Your task to perform on an android device: Go to notification settings Image 0: 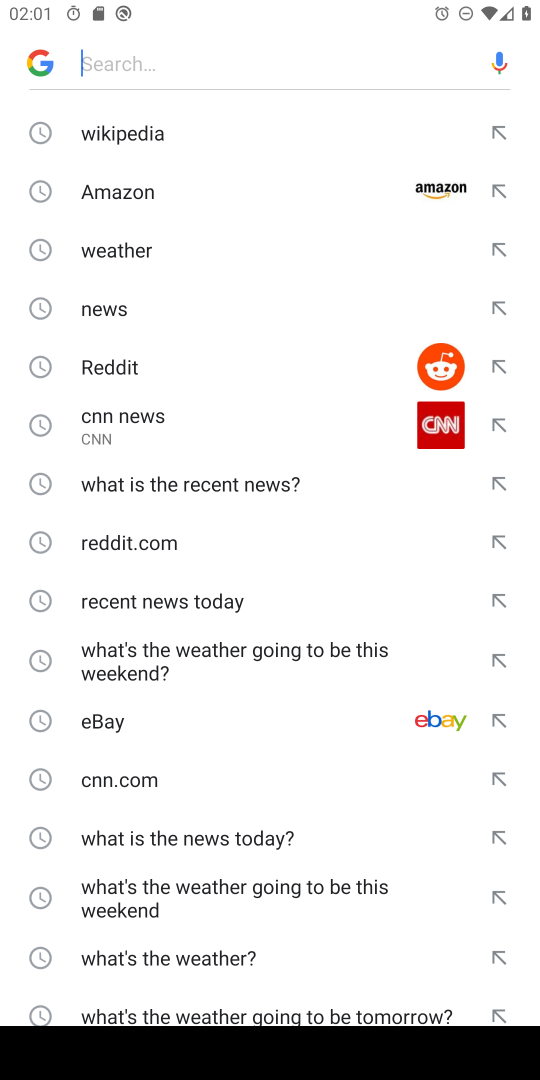
Step 0: press home button
Your task to perform on an android device: Go to notification settings Image 1: 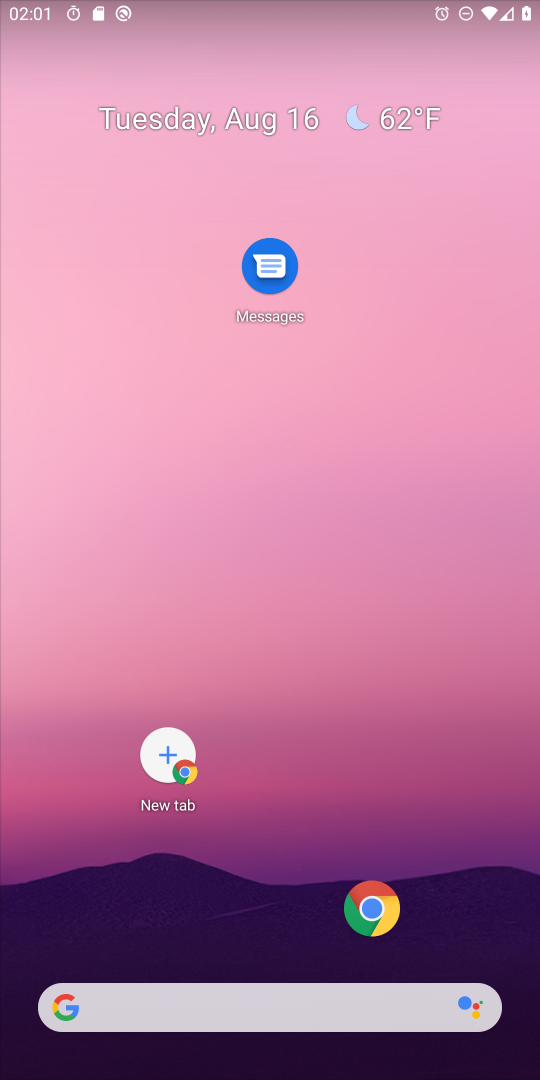
Step 1: drag from (265, 899) to (257, 92)
Your task to perform on an android device: Go to notification settings Image 2: 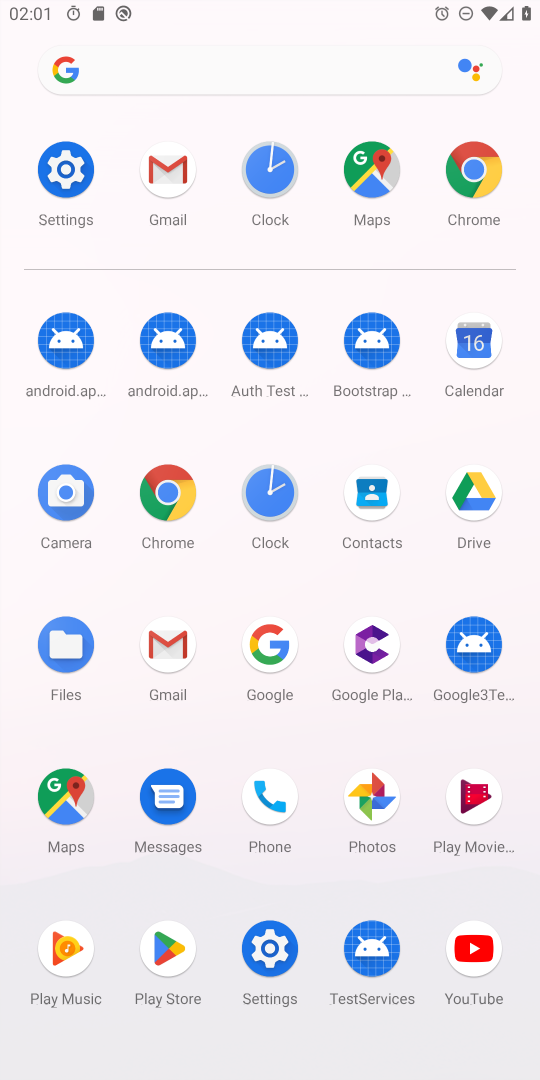
Step 2: click (73, 183)
Your task to perform on an android device: Go to notification settings Image 3: 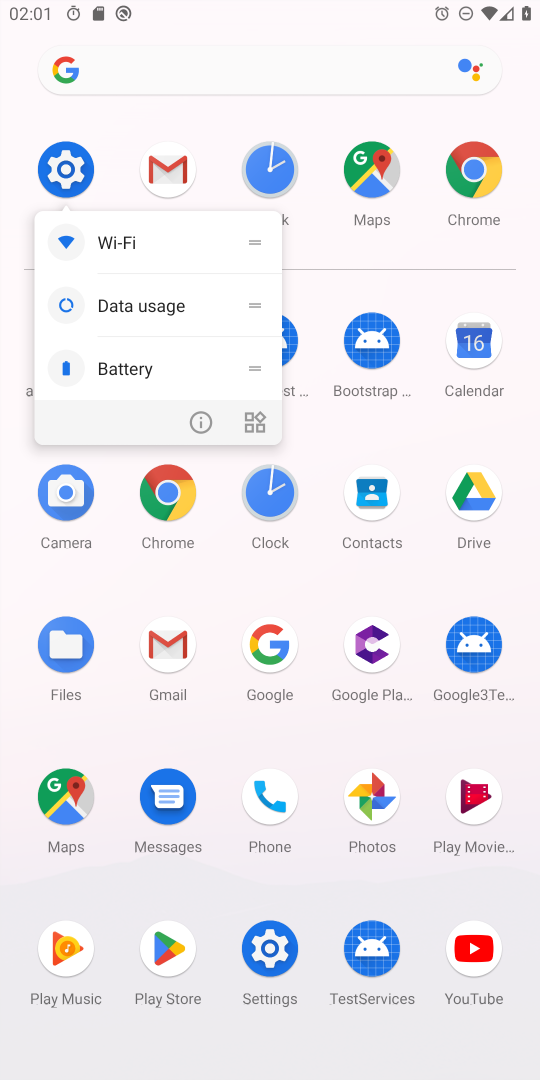
Step 3: click (53, 169)
Your task to perform on an android device: Go to notification settings Image 4: 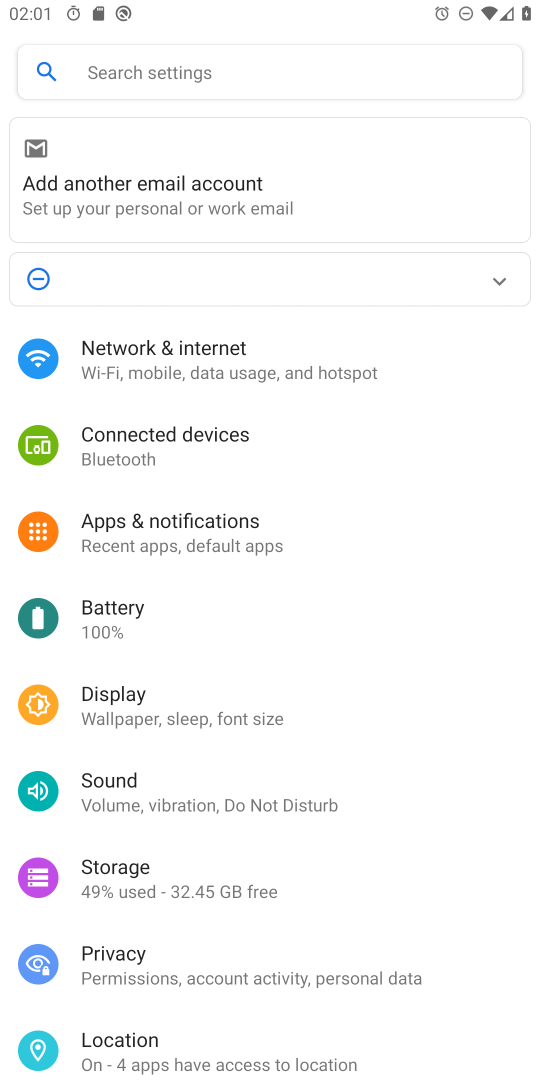
Step 4: click (211, 509)
Your task to perform on an android device: Go to notification settings Image 5: 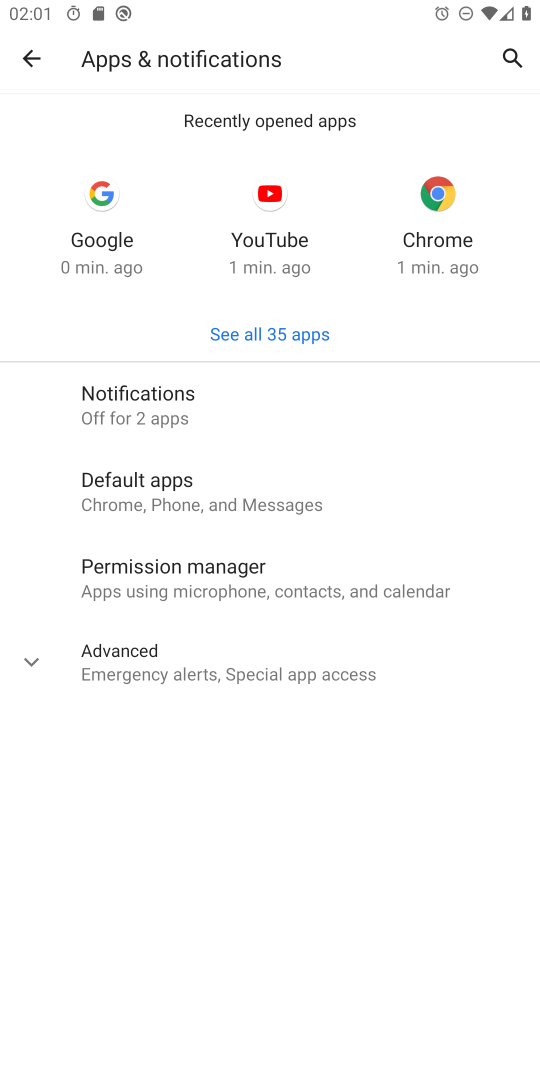
Step 5: task complete